Your task to perform on an android device: turn on showing notifications on the lock screen Image 0: 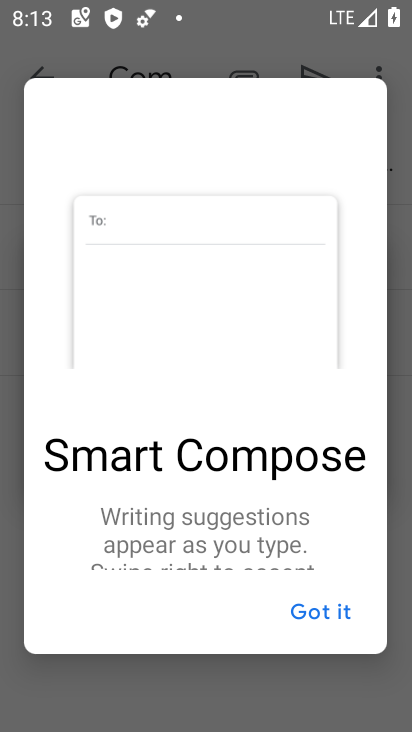
Step 0: press home button
Your task to perform on an android device: turn on showing notifications on the lock screen Image 1: 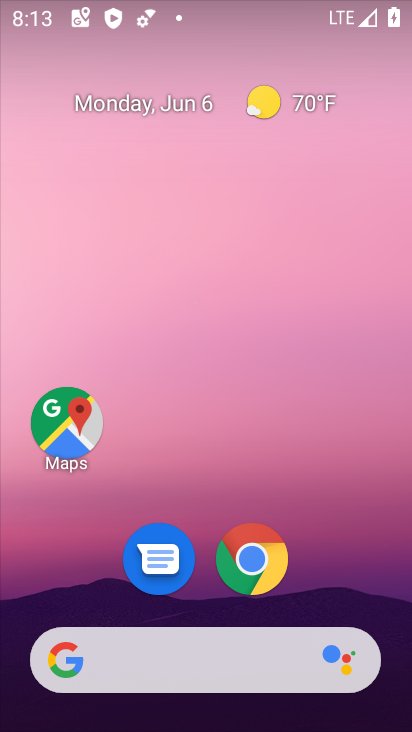
Step 1: drag from (267, 720) to (273, 200)
Your task to perform on an android device: turn on showing notifications on the lock screen Image 2: 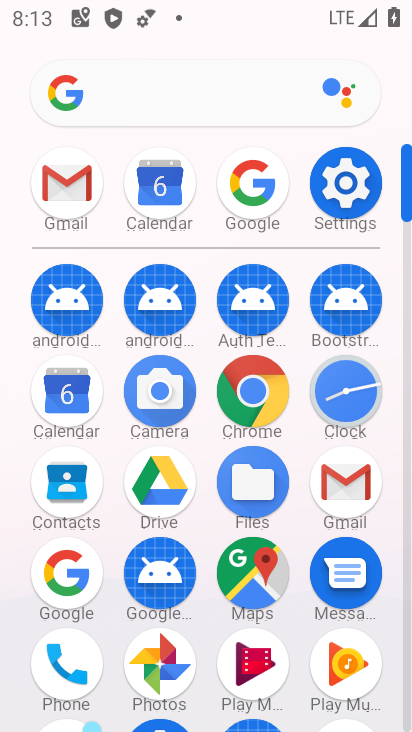
Step 2: click (353, 179)
Your task to perform on an android device: turn on showing notifications on the lock screen Image 3: 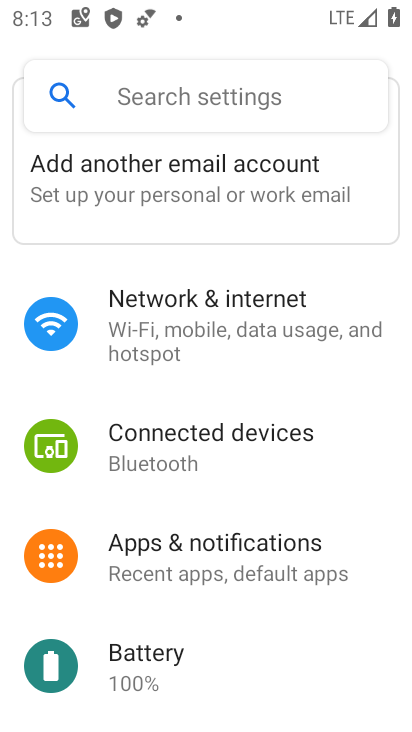
Step 3: click (190, 560)
Your task to perform on an android device: turn on showing notifications on the lock screen Image 4: 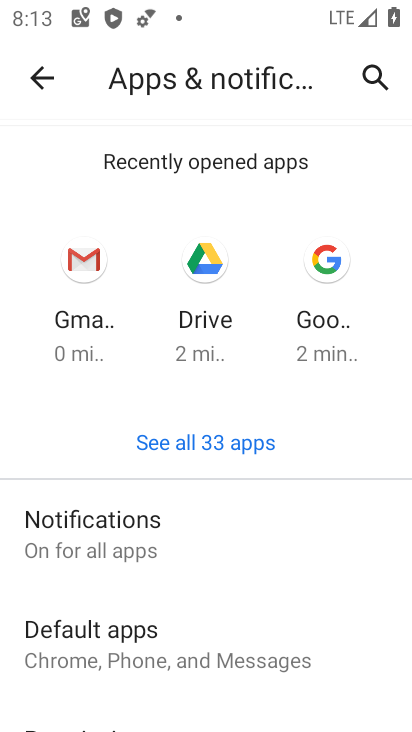
Step 4: click (89, 543)
Your task to perform on an android device: turn on showing notifications on the lock screen Image 5: 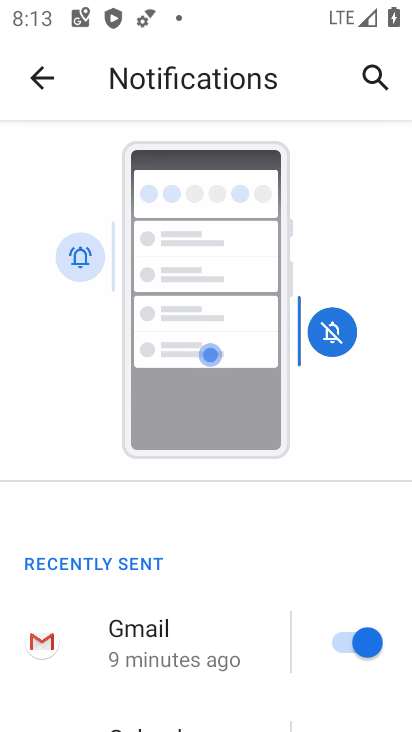
Step 5: task complete